Your task to perform on an android device: Open notification settings Image 0: 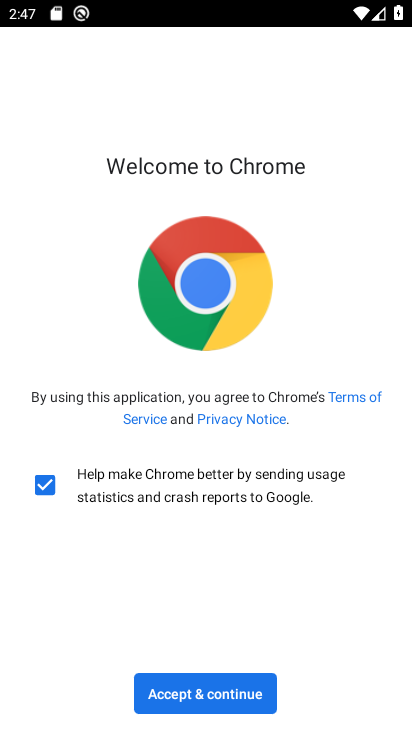
Step 0: click (170, 693)
Your task to perform on an android device: Open notification settings Image 1: 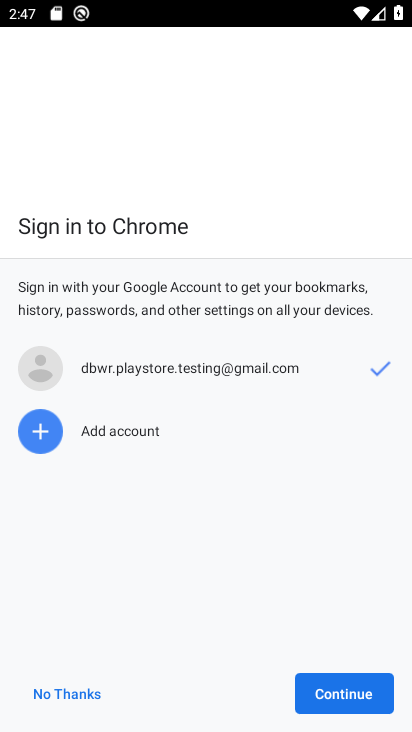
Step 1: press home button
Your task to perform on an android device: Open notification settings Image 2: 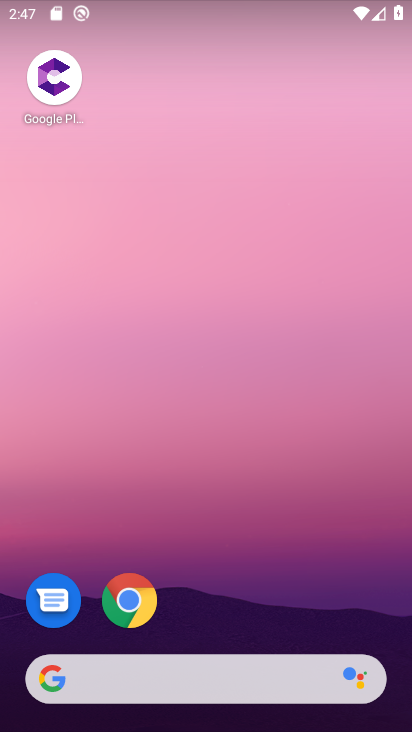
Step 2: drag from (198, 631) to (174, 349)
Your task to perform on an android device: Open notification settings Image 3: 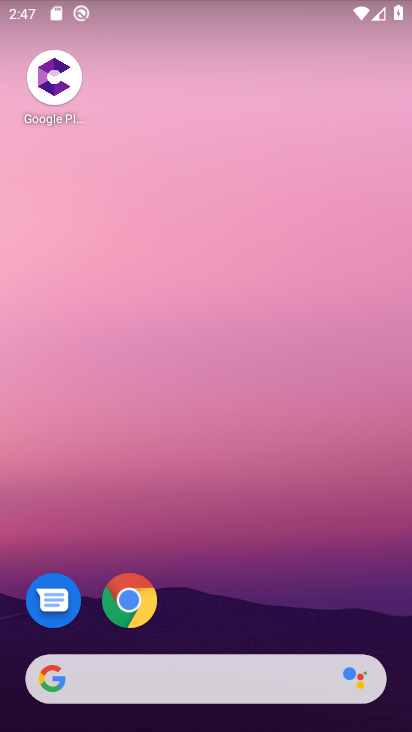
Step 3: drag from (240, 637) to (182, 219)
Your task to perform on an android device: Open notification settings Image 4: 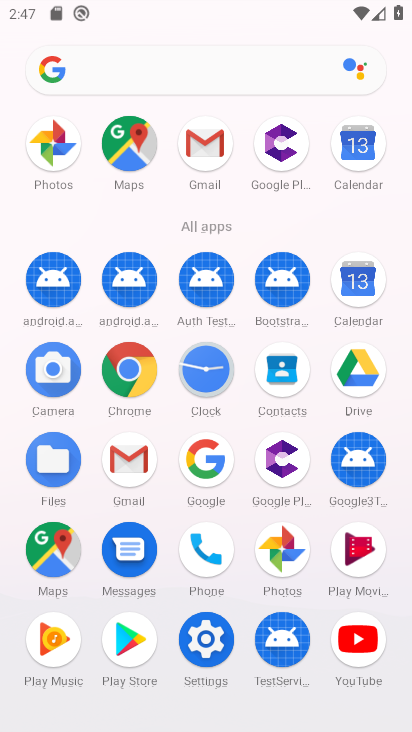
Step 4: click (209, 642)
Your task to perform on an android device: Open notification settings Image 5: 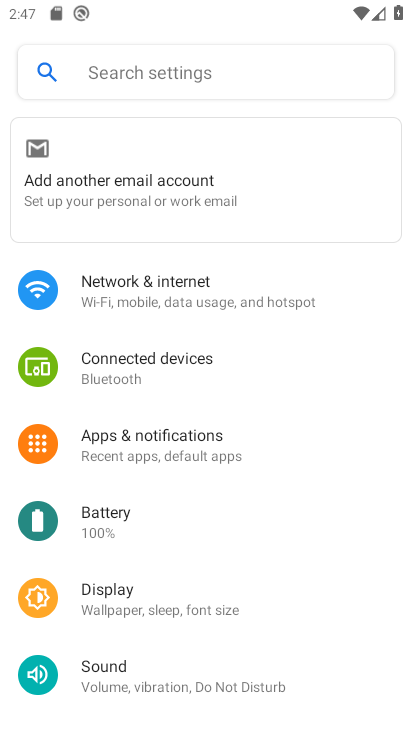
Step 5: click (161, 448)
Your task to perform on an android device: Open notification settings Image 6: 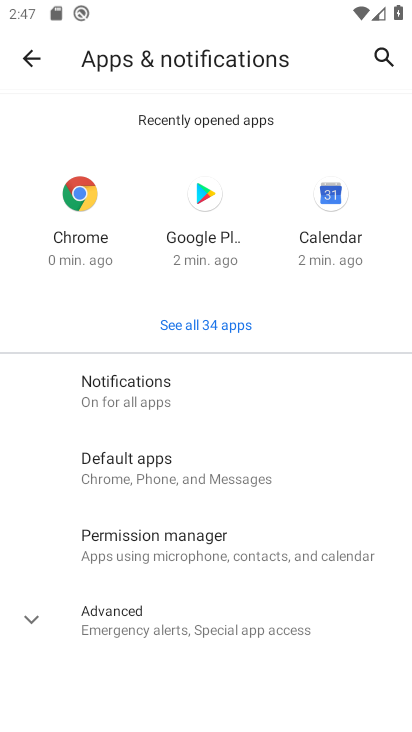
Step 6: click (150, 614)
Your task to perform on an android device: Open notification settings Image 7: 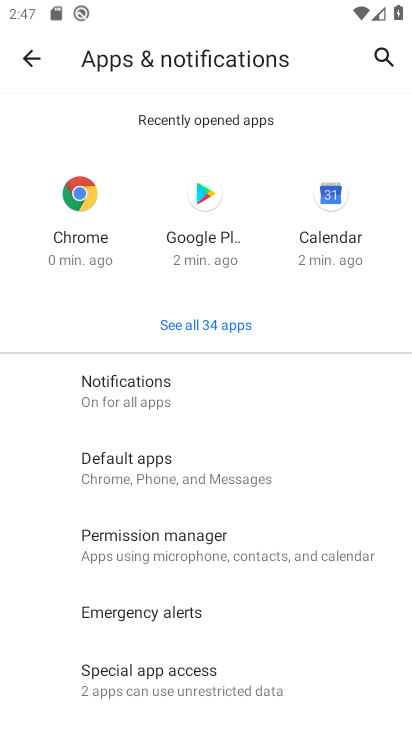
Step 7: task complete